Your task to perform on an android device: install app "Life360: Find Family & Friends" Image 0: 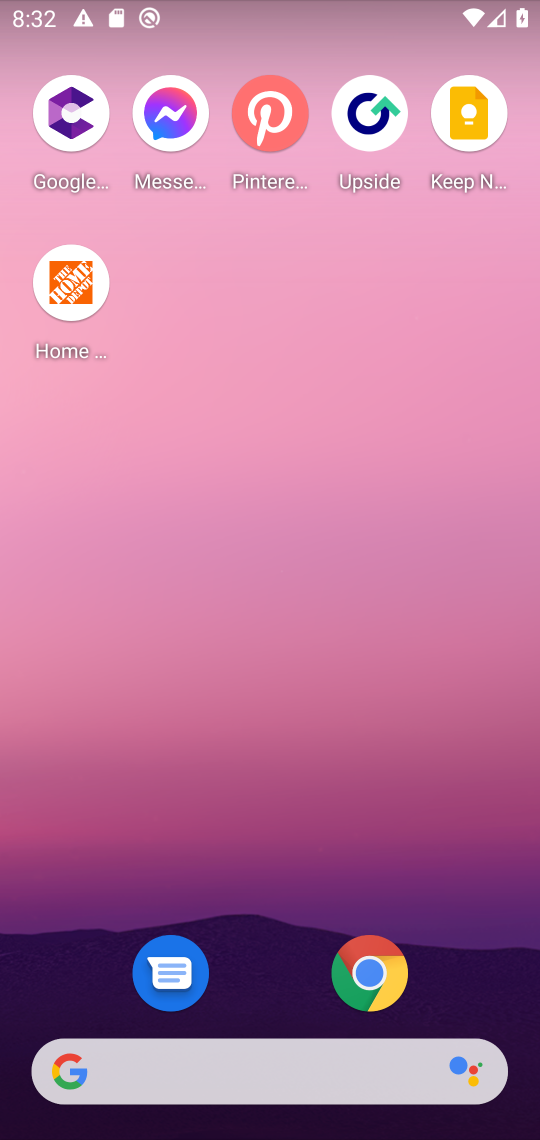
Step 0: drag from (282, 1101) to (343, 291)
Your task to perform on an android device: install app "Life360: Find Family & Friends" Image 1: 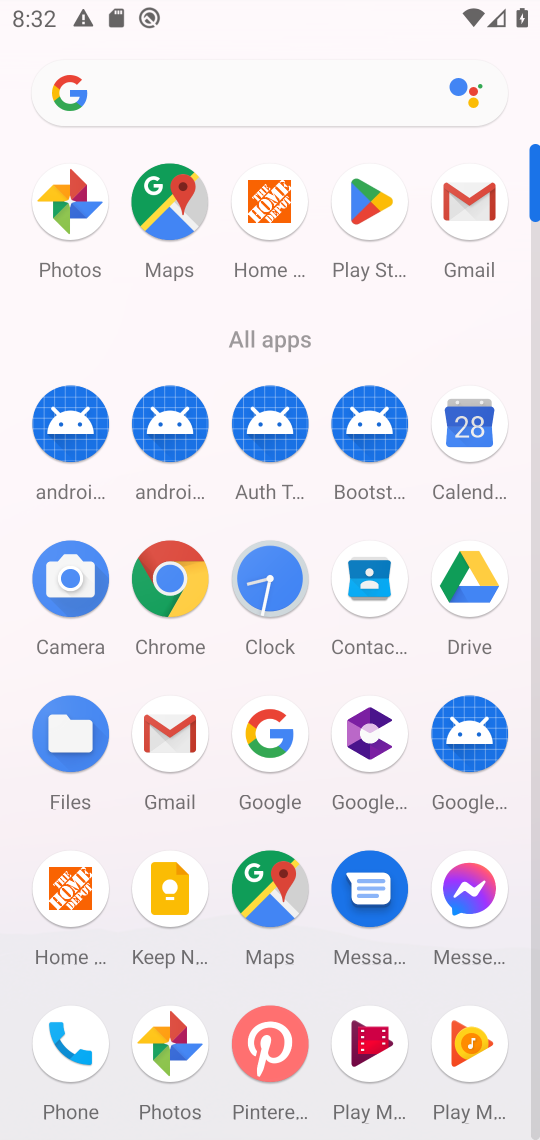
Step 1: click (367, 223)
Your task to perform on an android device: install app "Life360: Find Family & Friends" Image 2: 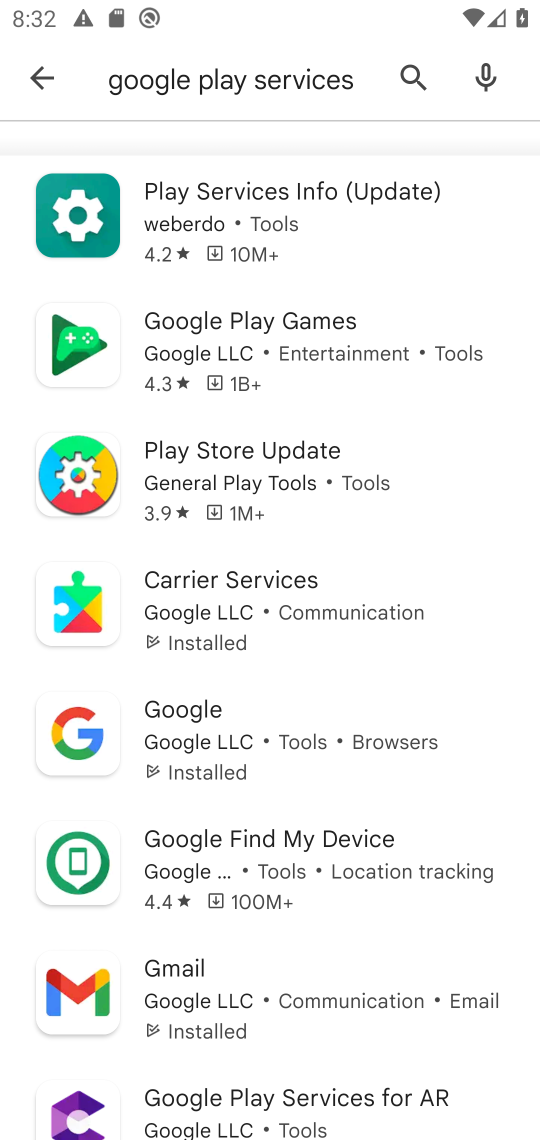
Step 2: click (32, 91)
Your task to perform on an android device: install app "Life360: Find Family & Friends" Image 3: 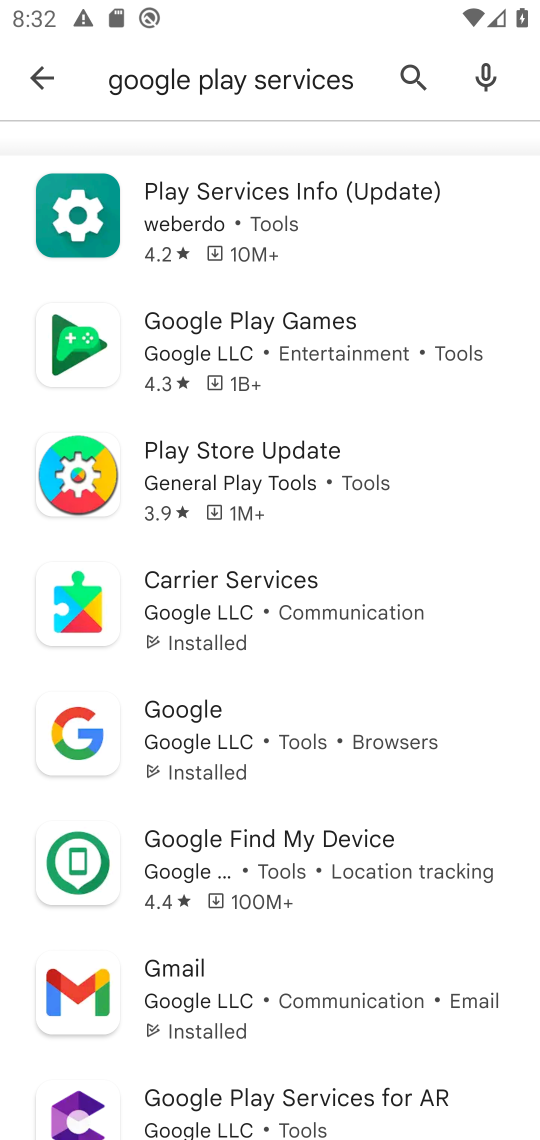
Step 3: click (47, 77)
Your task to perform on an android device: install app "Life360: Find Family & Friends" Image 4: 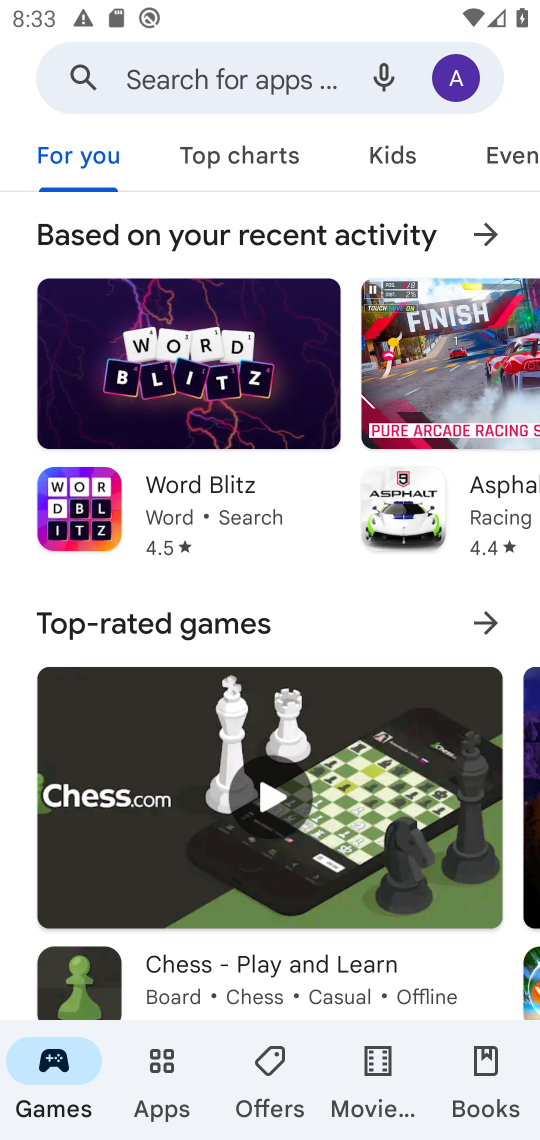
Step 4: click (186, 90)
Your task to perform on an android device: install app "Life360: Find Family & Friends" Image 5: 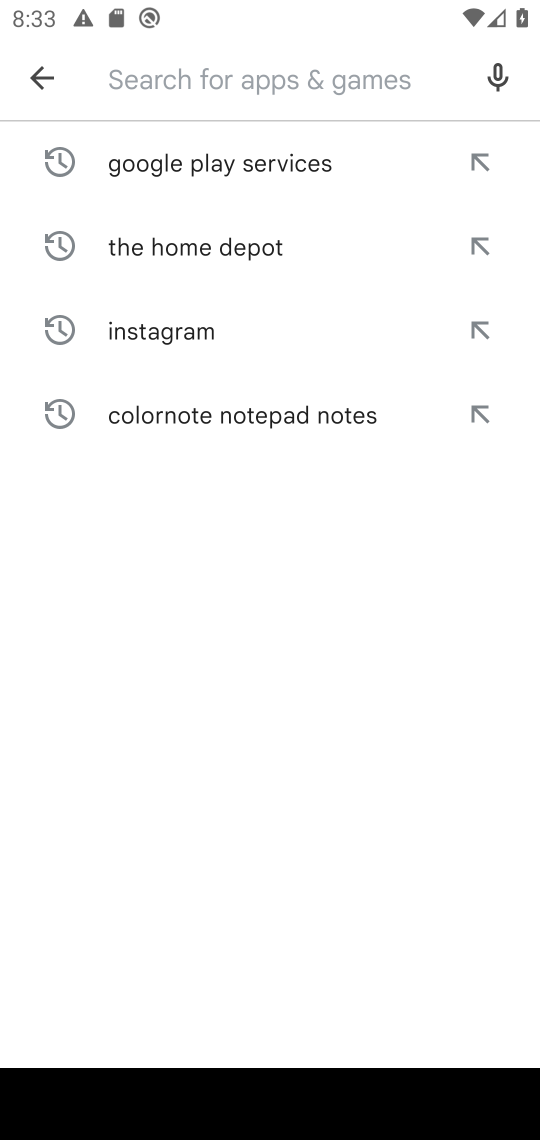
Step 5: type "Life360: Find Family & Friends"
Your task to perform on an android device: install app "Life360: Find Family & Friends" Image 6: 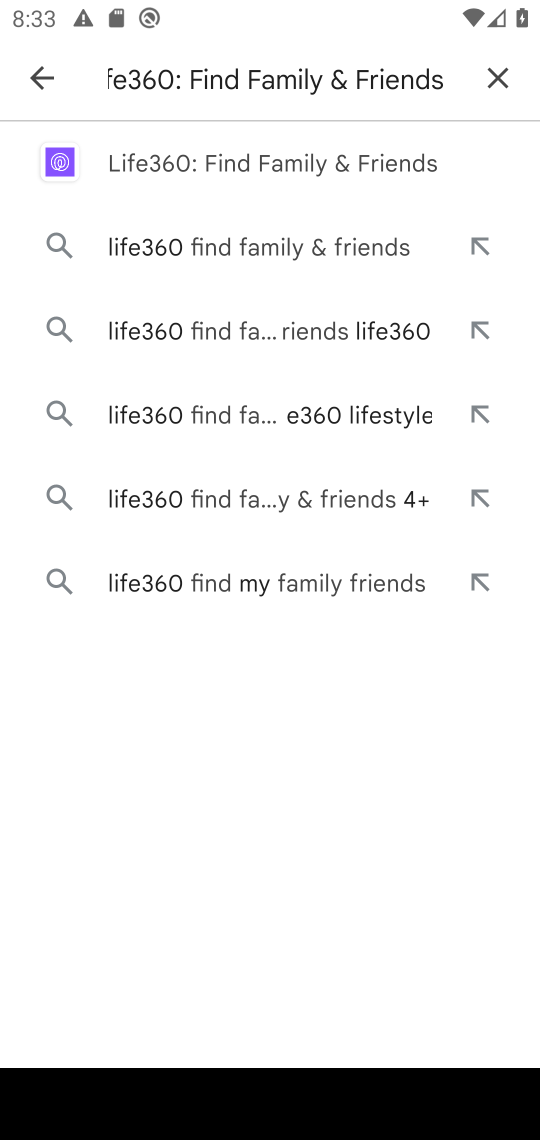
Step 6: click (304, 170)
Your task to perform on an android device: install app "Life360: Find Family & Friends" Image 7: 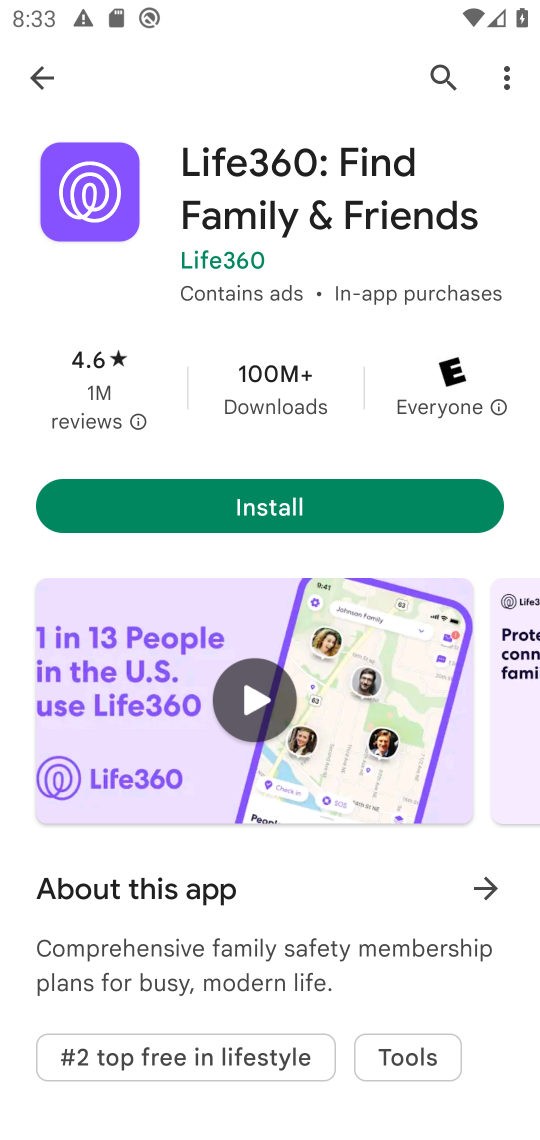
Step 7: click (154, 517)
Your task to perform on an android device: install app "Life360: Find Family & Friends" Image 8: 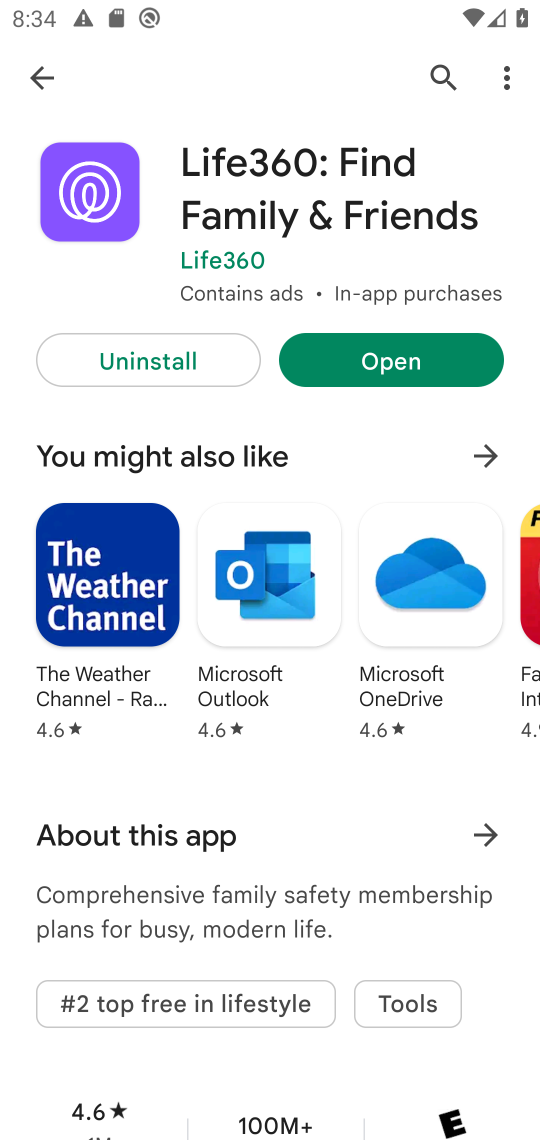
Step 8: task complete